Your task to perform on an android device: open app "Spotify" Image 0: 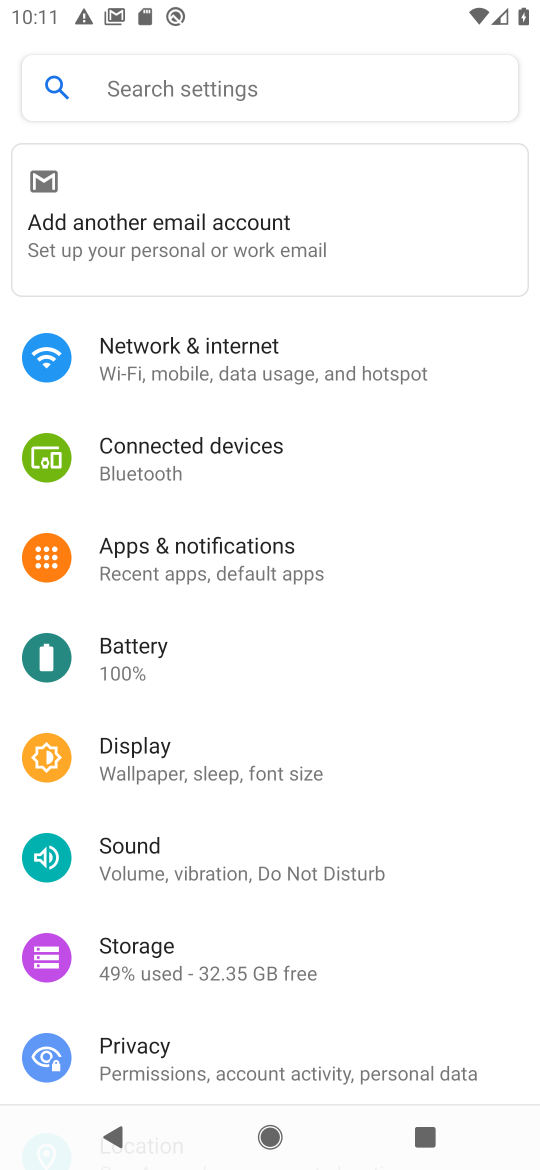
Step 0: press home button
Your task to perform on an android device: open app "Spotify" Image 1: 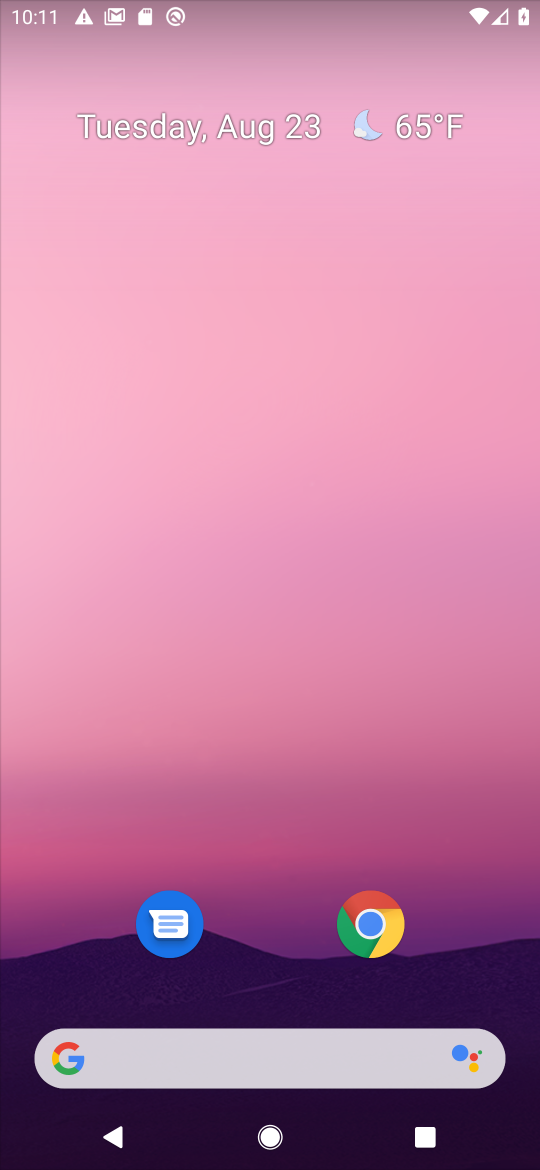
Step 1: press home button
Your task to perform on an android device: open app "Spotify" Image 2: 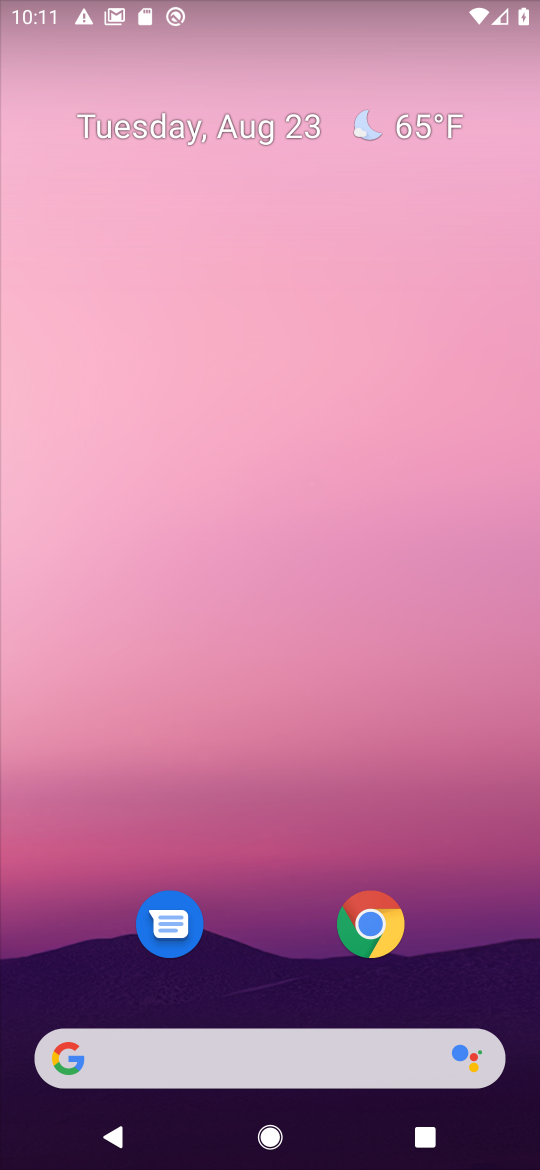
Step 2: drag from (244, 1006) to (186, 2)
Your task to perform on an android device: open app "Spotify" Image 3: 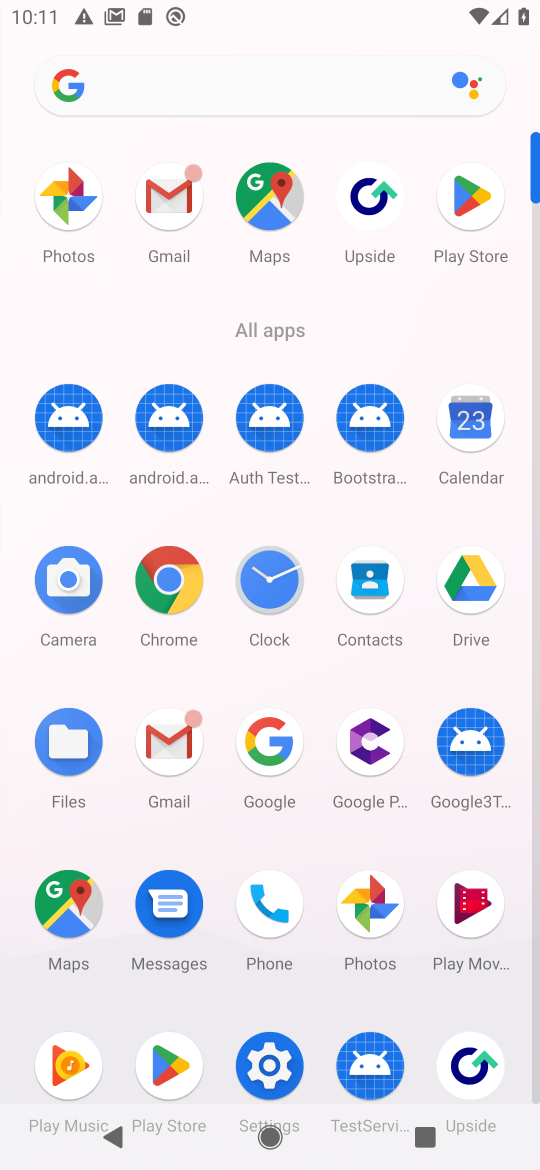
Step 3: click (445, 222)
Your task to perform on an android device: open app "Spotify" Image 4: 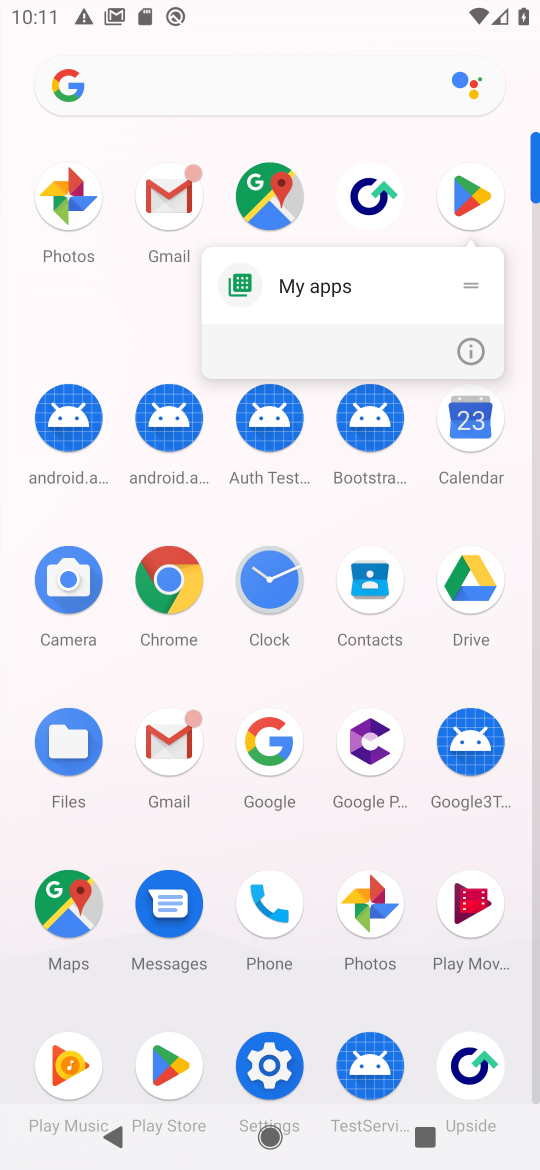
Step 4: click (485, 186)
Your task to perform on an android device: open app "Spotify" Image 5: 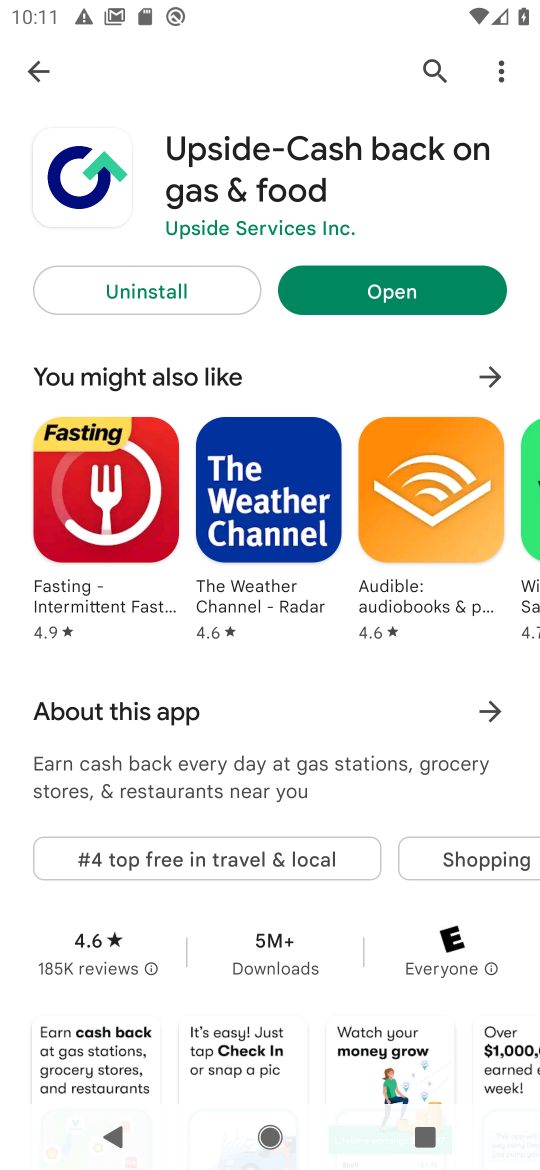
Step 5: click (431, 72)
Your task to perform on an android device: open app "Spotify" Image 6: 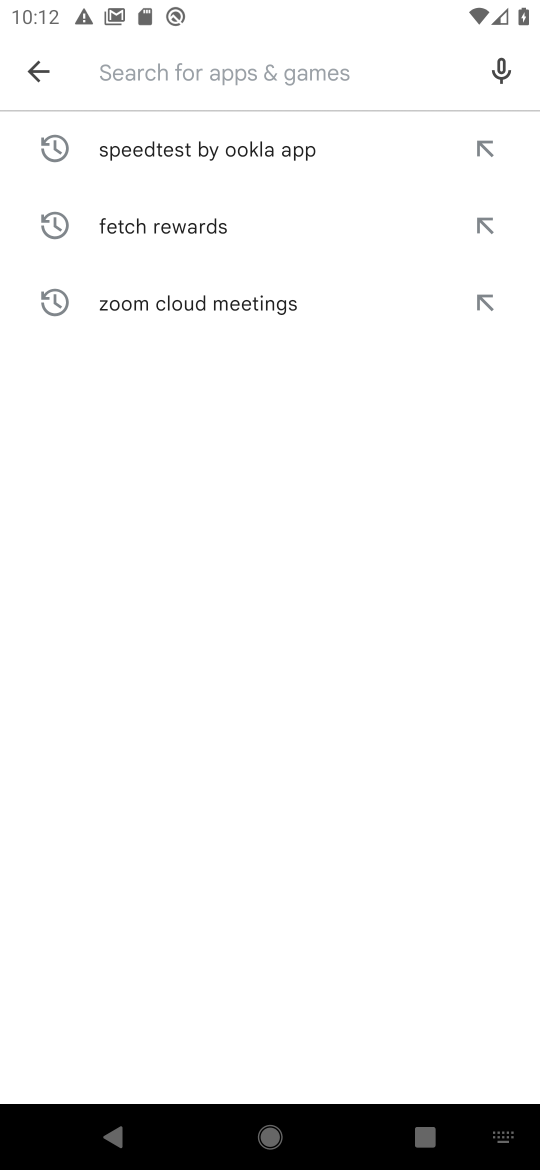
Step 6: type "spotify"
Your task to perform on an android device: open app "Spotify" Image 7: 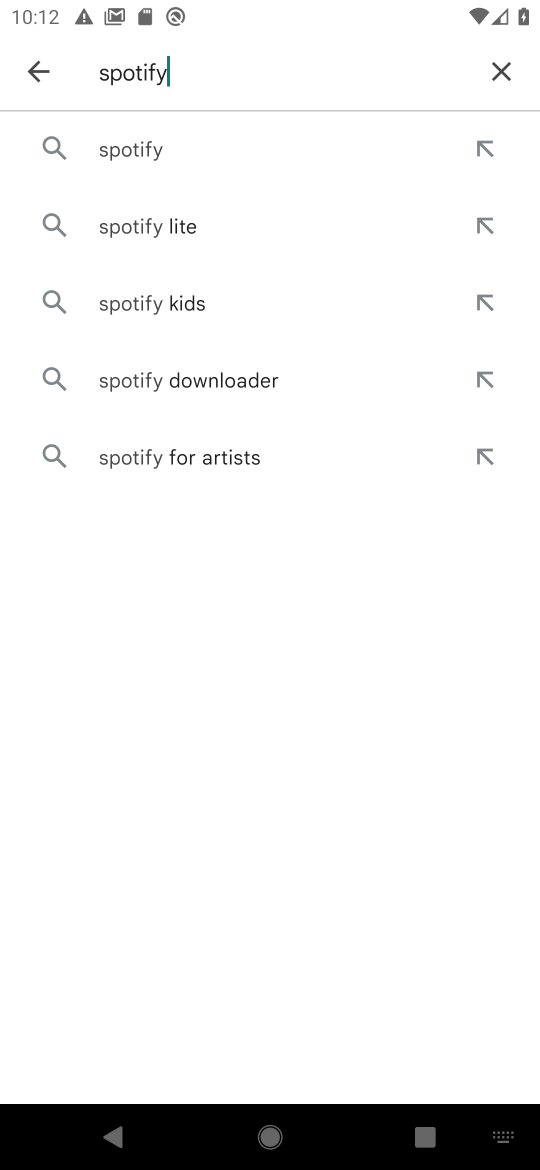
Step 7: click (162, 147)
Your task to perform on an android device: open app "Spotify" Image 8: 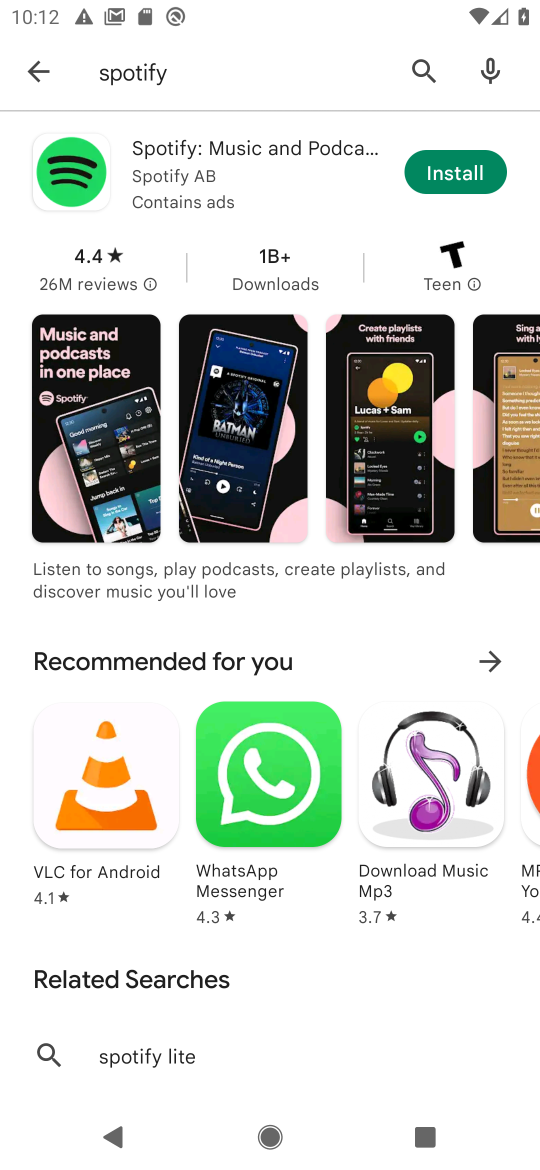
Step 8: task complete